Your task to perform on an android device: Open the Play Movies app and select the watchlist tab. Image 0: 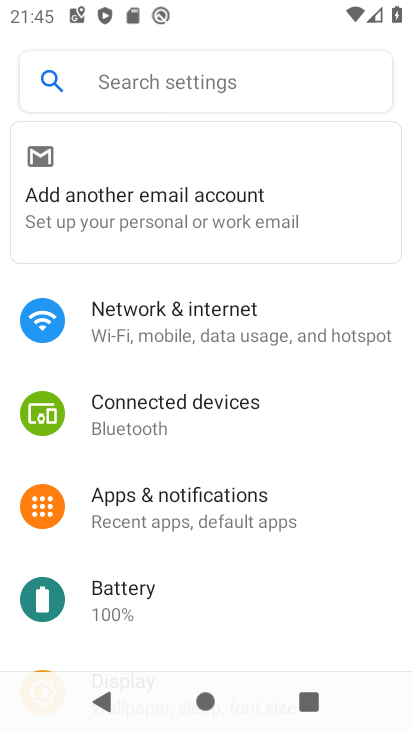
Step 0: press home button
Your task to perform on an android device: Open the Play Movies app and select the watchlist tab. Image 1: 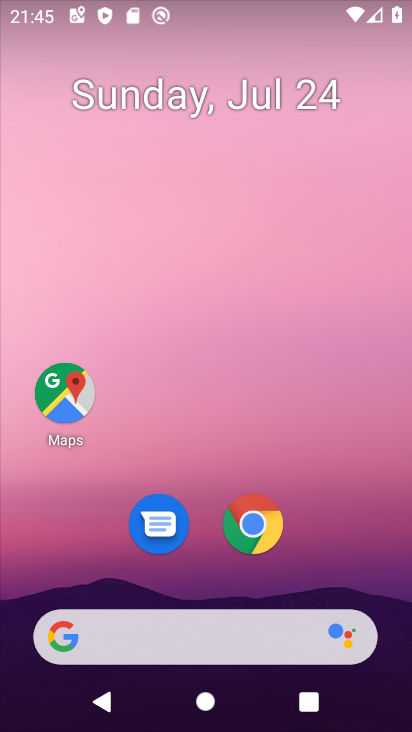
Step 1: drag from (231, 631) to (365, 200)
Your task to perform on an android device: Open the Play Movies app and select the watchlist tab. Image 2: 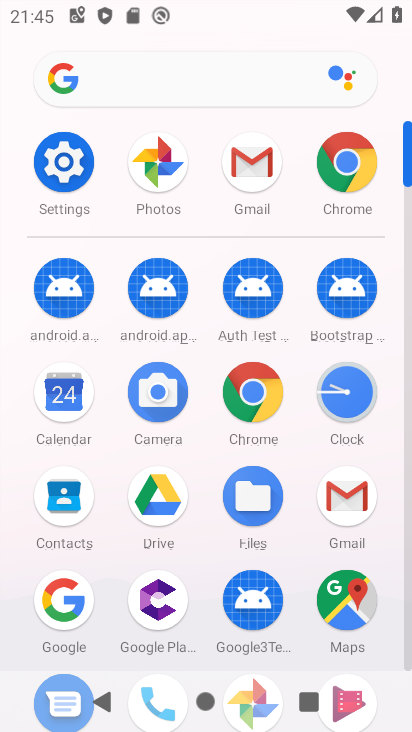
Step 2: drag from (289, 614) to (402, 178)
Your task to perform on an android device: Open the Play Movies app and select the watchlist tab. Image 3: 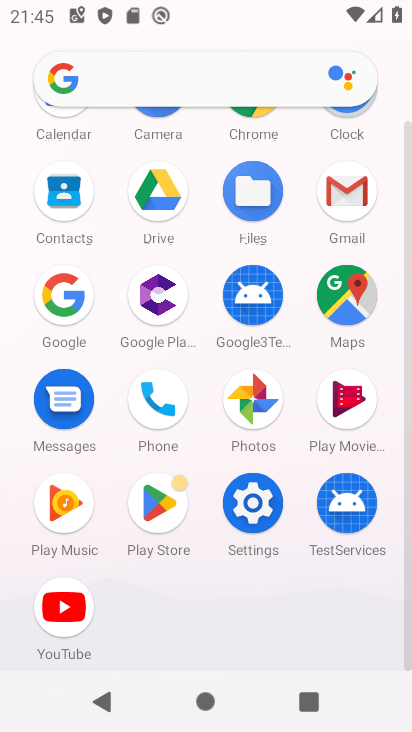
Step 3: click (342, 408)
Your task to perform on an android device: Open the Play Movies app and select the watchlist tab. Image 4: 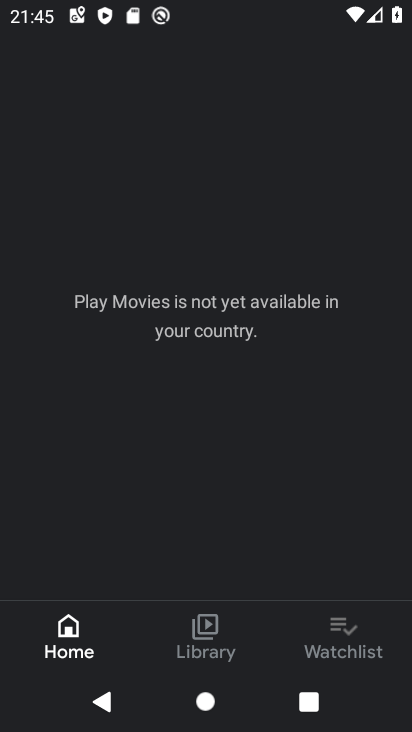
Step 4: task complete